Your task to perform on an android device: change notification settings in the gmail app Image 0: 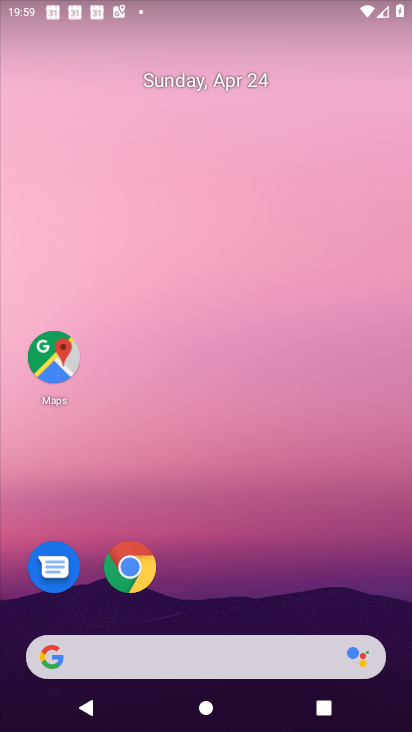
Step 0: drag from (293, 683) to (239, 188)
Your task to perform on an android device: change notification settings in the gmail app Image 1: 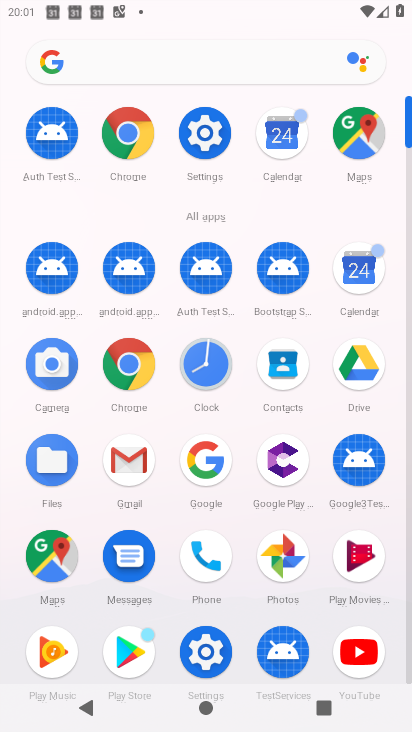
Step 1: click (130, 467)
Your task to perform on an android device: change notification settings in the gmail app Image 2: 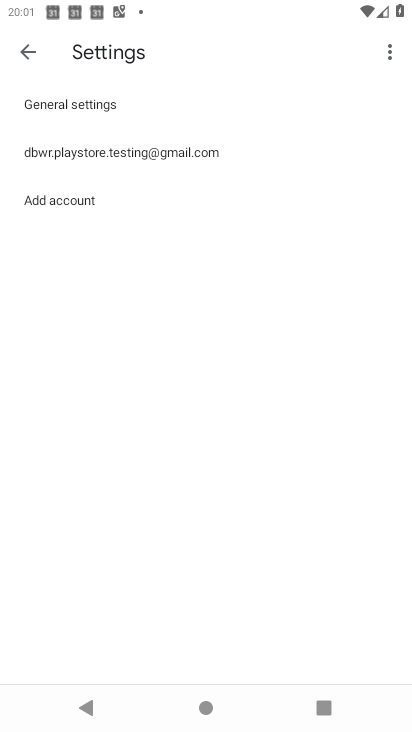
Step 2: click (38, 48)
Your task to perform on an android device: change notification settings in the gmail app Image 3: 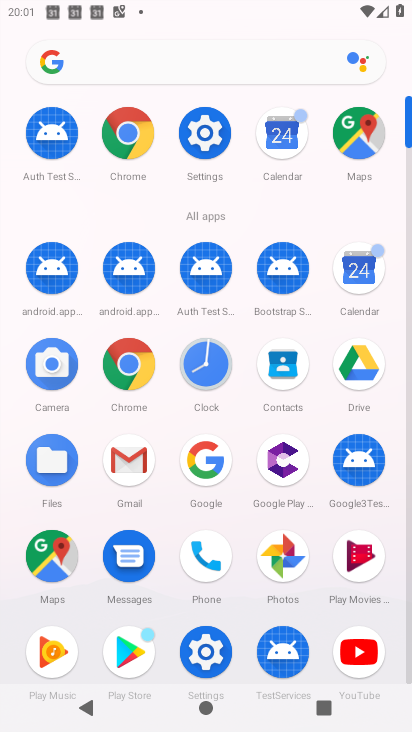
Step 3: click (120, 455)
Your task to perform on an android device: change notification settings in the gmail app Image 4: 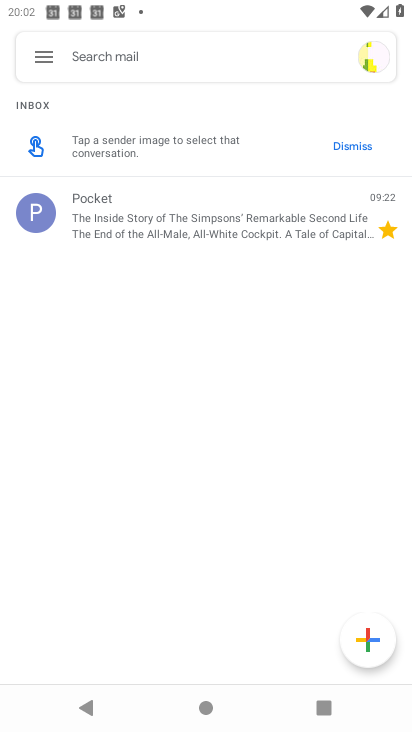
Step 4: click (26, 57)
Your task to perform on an android device: change notification settings in the gmail app Image 5: 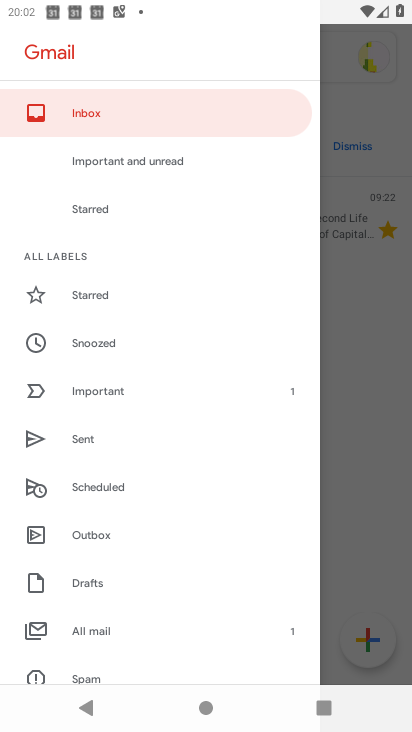
Step 5: drag from (138, 632) to (222, 332)
Your task to perform on an android device: change notification settings in the gmail app Image 6: 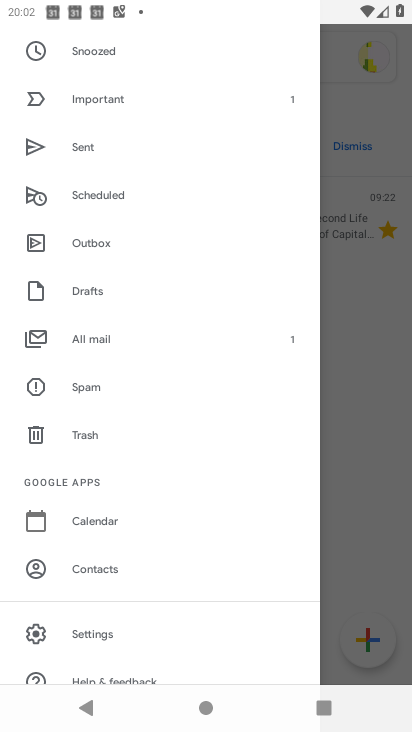
Step 6: click (94, 626)
Your task to perform on an android device: change notification settings in the gmail app Image 7: 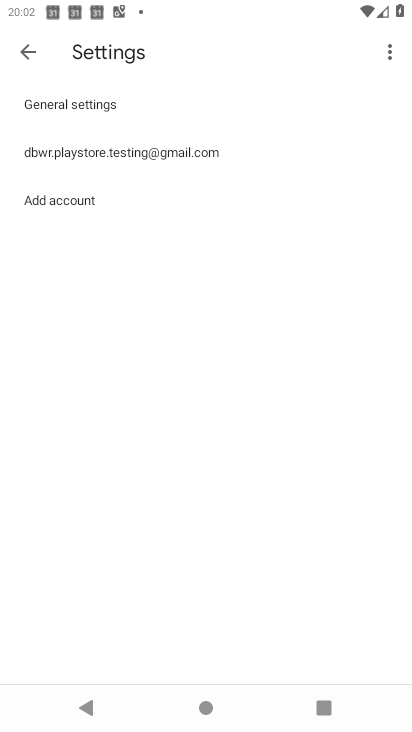
Step 7: click (91, 132)
Your task to perform on an android device: change notification settings in the gmail app Image 8: 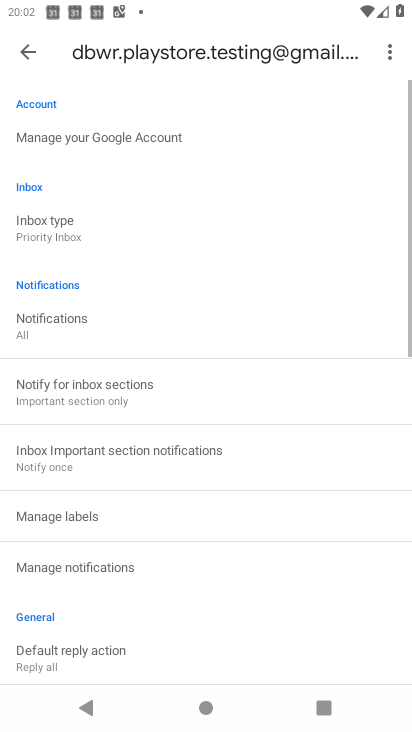
Step 8: click (60, 333)
Your task to perform on an android device: change notification settings in the gmail app Image 9: 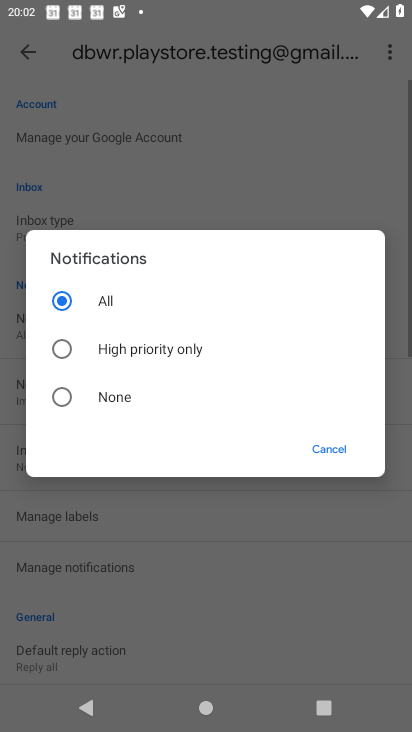
Step 9: click (159, 350)
Your task to perform on an android device: change notification settings in the gmail app Image 10: 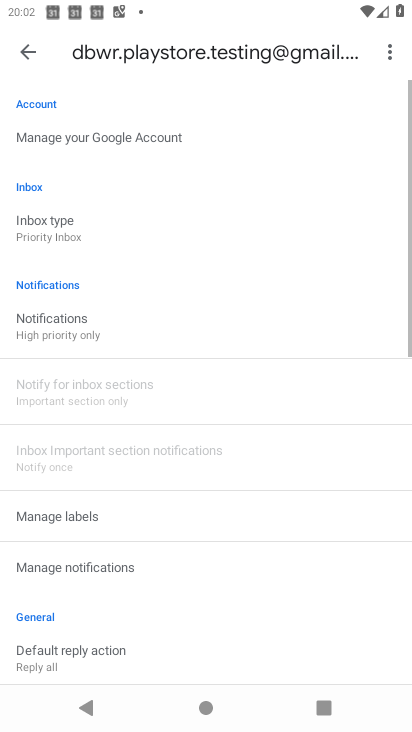
Step 10: task complete